Your task to perform on an android device: turn off priority inbox in the gmail app Image 0: 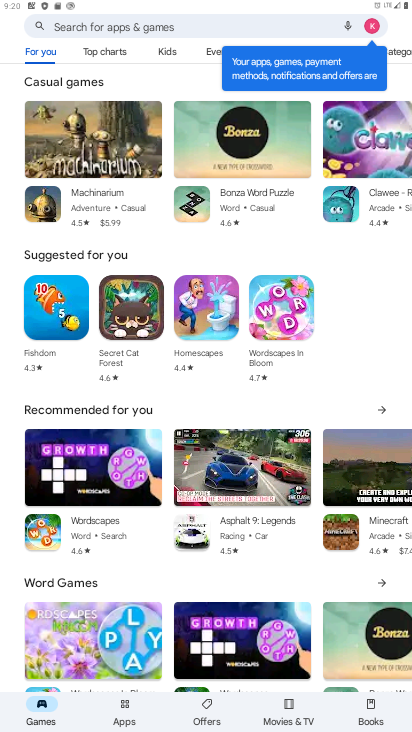
Step 0: press home button
Your task to perform on an android device: turn off priority inbox in the gmail app Image 1: 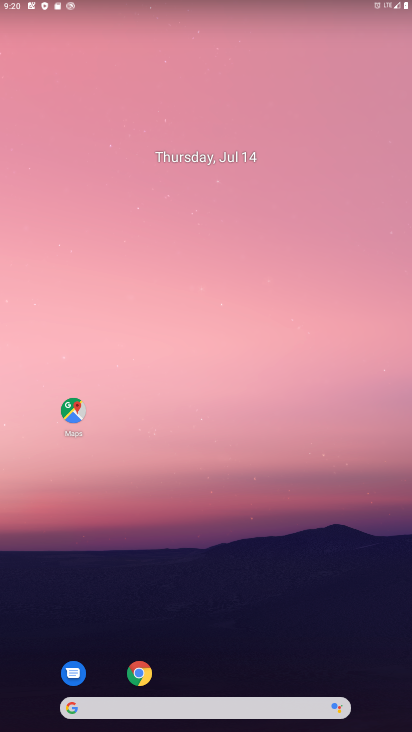
Step 1: drag from (240, 709) to (232, 253)
Your task to perform on an android device: turn off priority inbox in the gmail app Image 2: 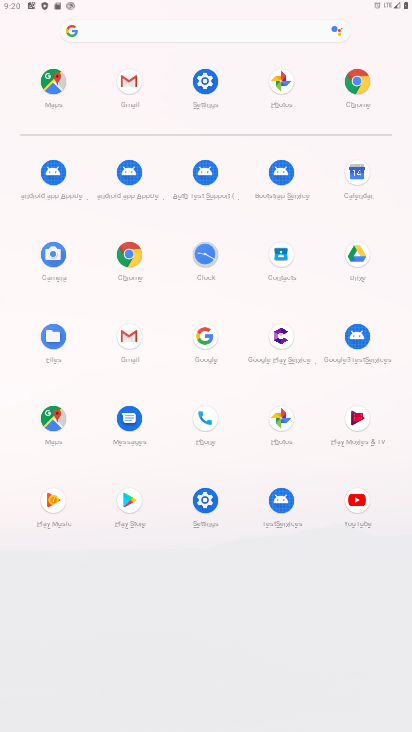
Step 2: click (129, 82)
Your task to perform on an android device: turn off priority inbox in the gmail app Image 3: 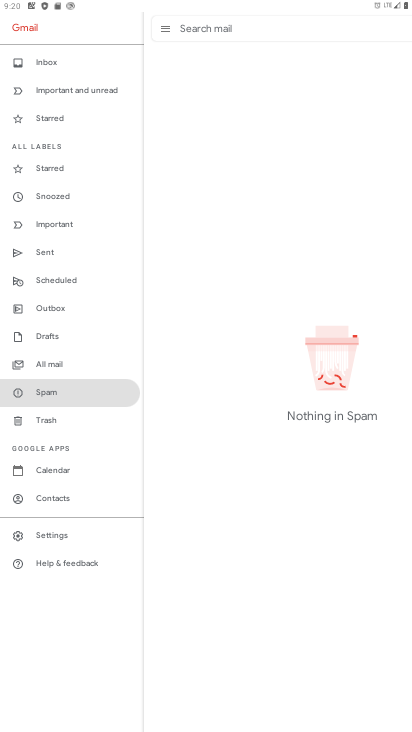
Step 3: click (52, 533)
Your task to perform on an android device: turn off priority inbox in the gmail app Image 4: 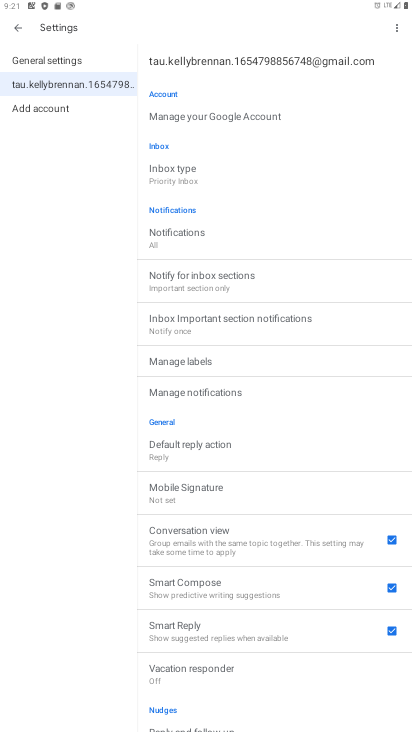
Step 4: click (189, 179)
Your task to perform on an android device: turn off priority inbox in the gmail app Image 5: 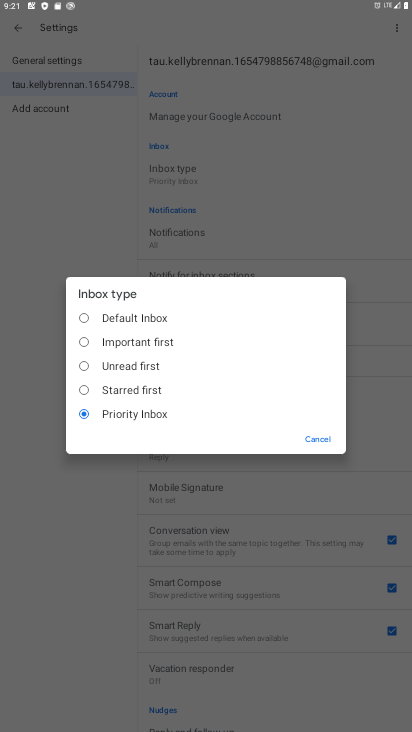
Step 5: click (79, 385)
Your task to perform on an android device: turn off priority inbox in the gmail app Image 6: 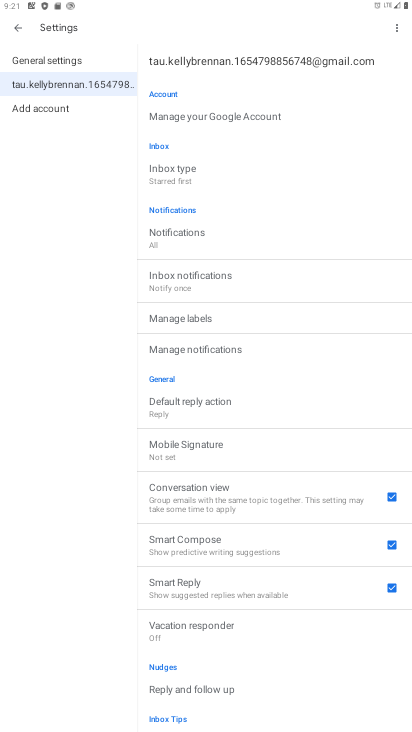
Step 6: task complete